Your task to perform on an android device: Search for sushi restaurants on Maps Image 0: 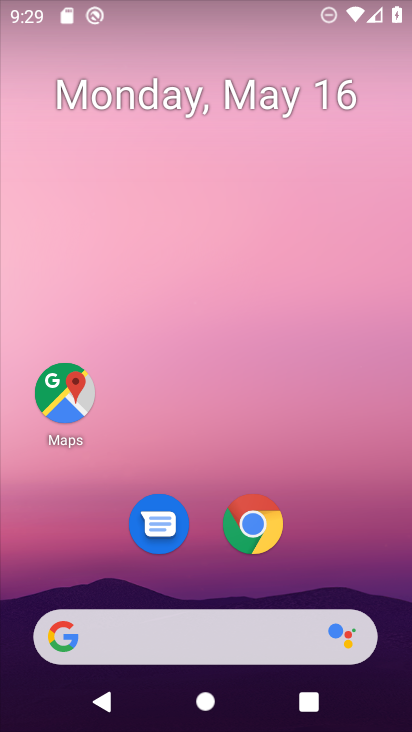
Step 0: click (62, 392)
Your task to perform on an android device: Search for sushi restaurants on Maps Image 1: 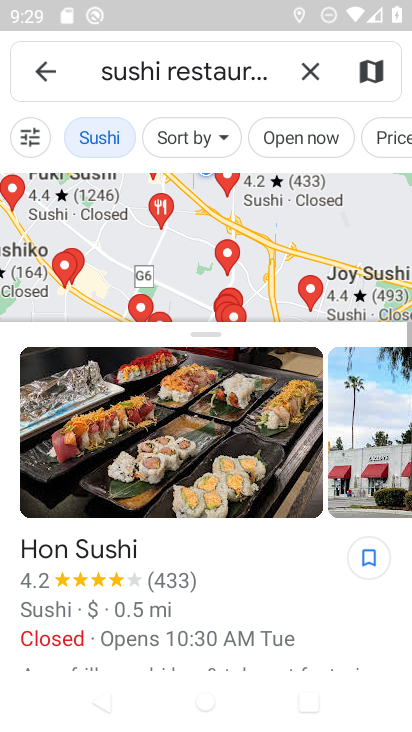
Step 1: task complete